Your task to perform on an android device: Show me popular videos on Youtube Image 0: 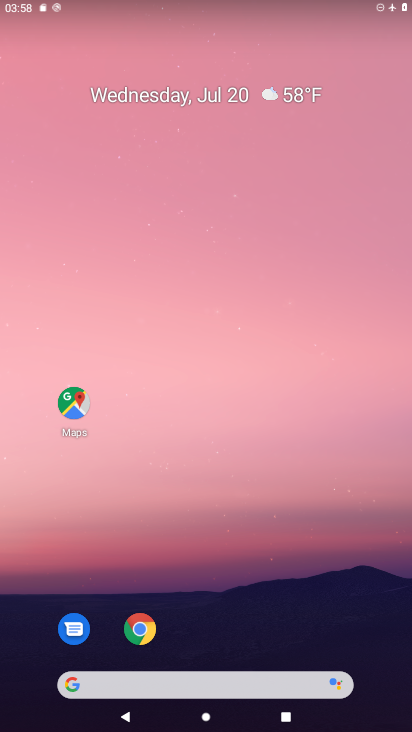
Step 0: drag from (339, 642) to (371, 82)
Your task to perform on an android device: Show me popular videos on Youtube Image 1: 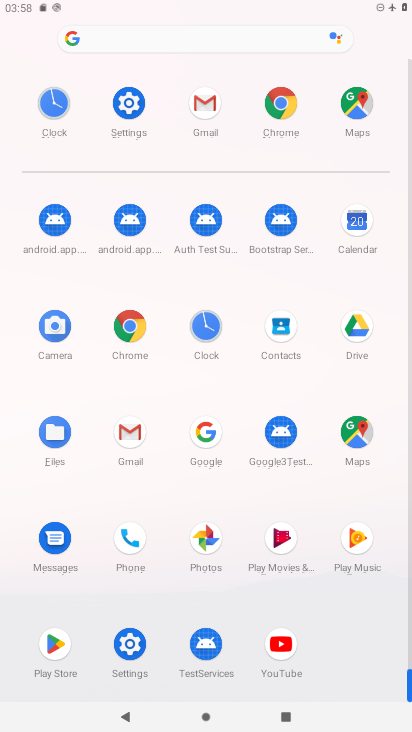
Step 1: click (275, 647)
Your task to perform on an android device: Show me popular videos on Youtube Image 2: 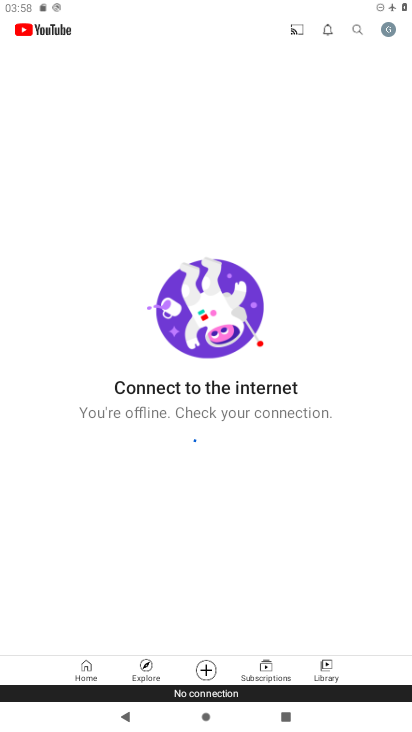
Step 2: press home button
Your task to perform on an android device: Show me popular videos on Youtube Image 3: 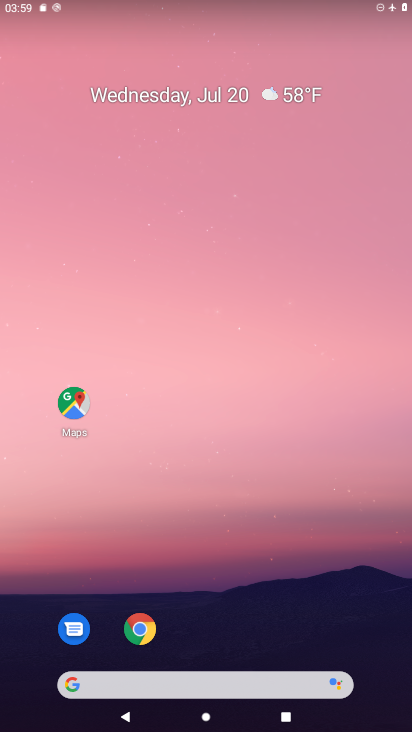
Step 3: drag from (330, 623) to (381, 145)
Your task to perform on an android device: Show me popular videos on Youtube Image 4: 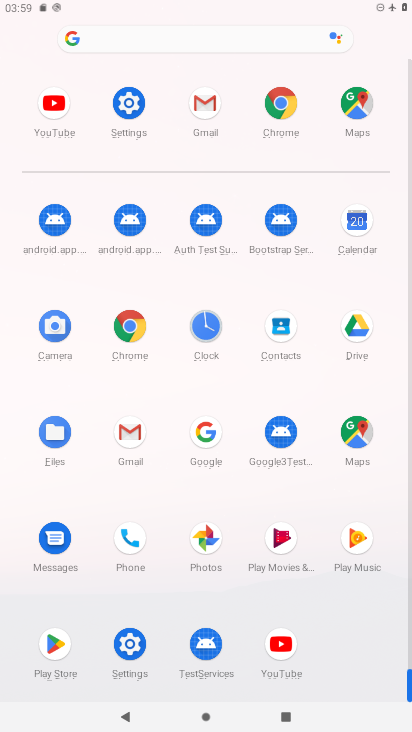
Step 4: click (274, 629)
Your task to perform on an android device: Show me popular videos on Youtube Image 5: 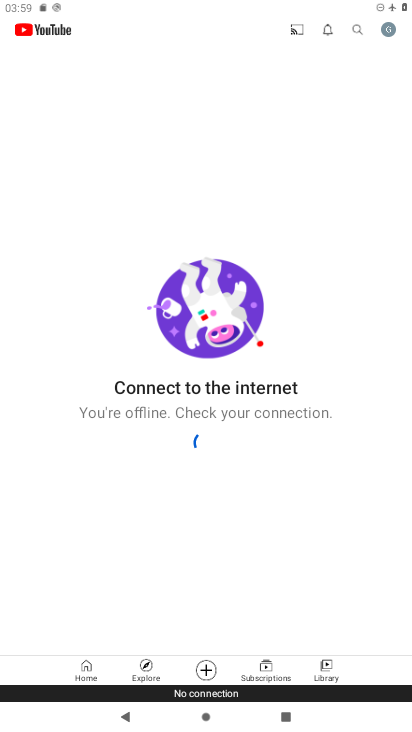
Step 5: task complete